Your task to perform on an android device: Search for sushi restaurants on Maps Image 0: 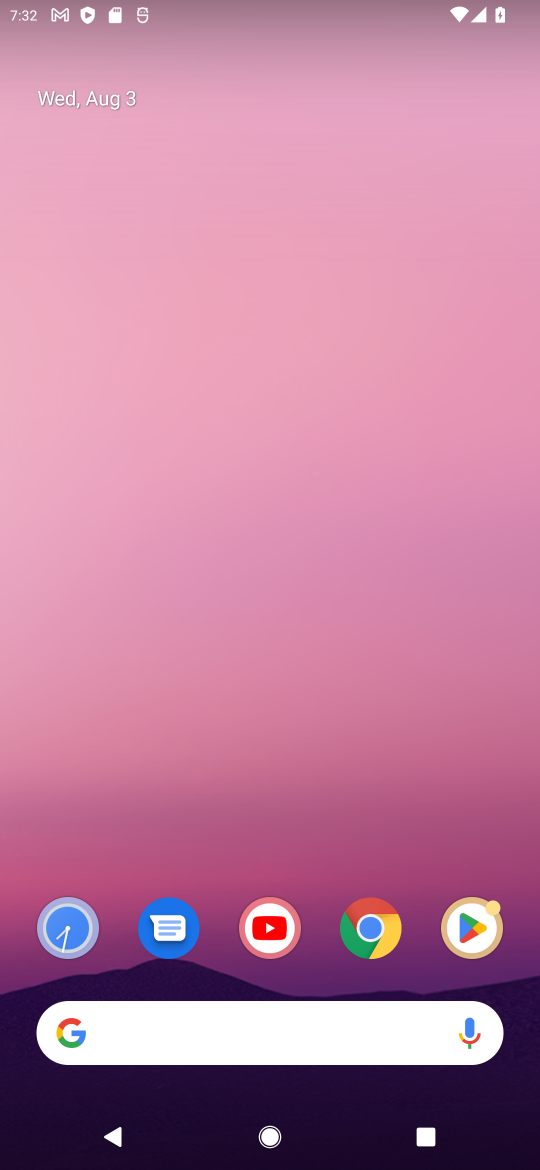
Step 0: drag from (321, 879) to (254, 186)
Your task to perform on an android device: Search for sushi restaurants on Maps Image 1: 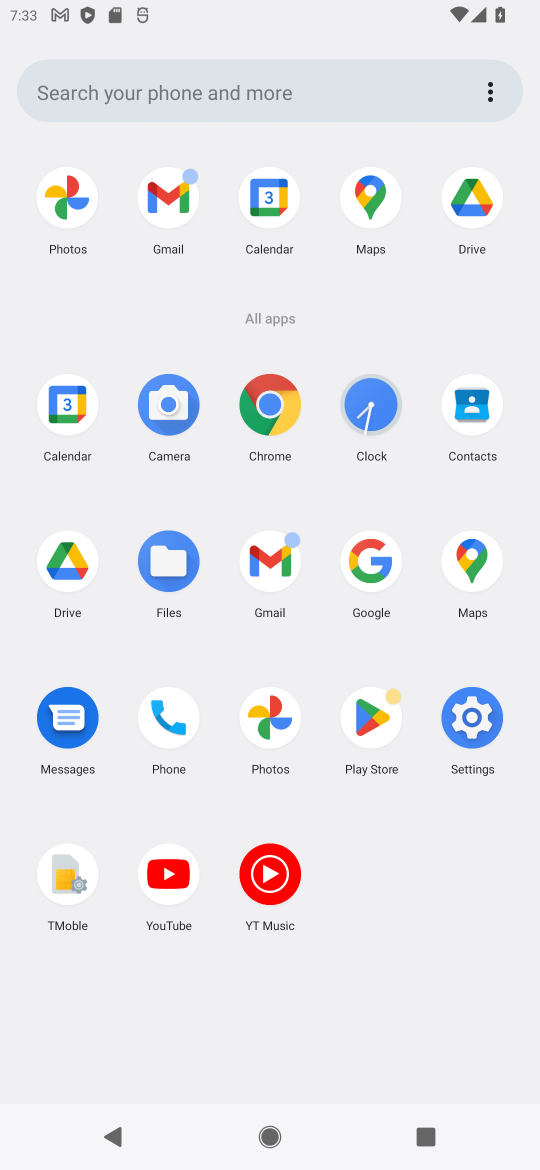
Step 1: click (369, 216)
Your task to perform on an android device: Search for sushi restaurants on Maps Image 2: 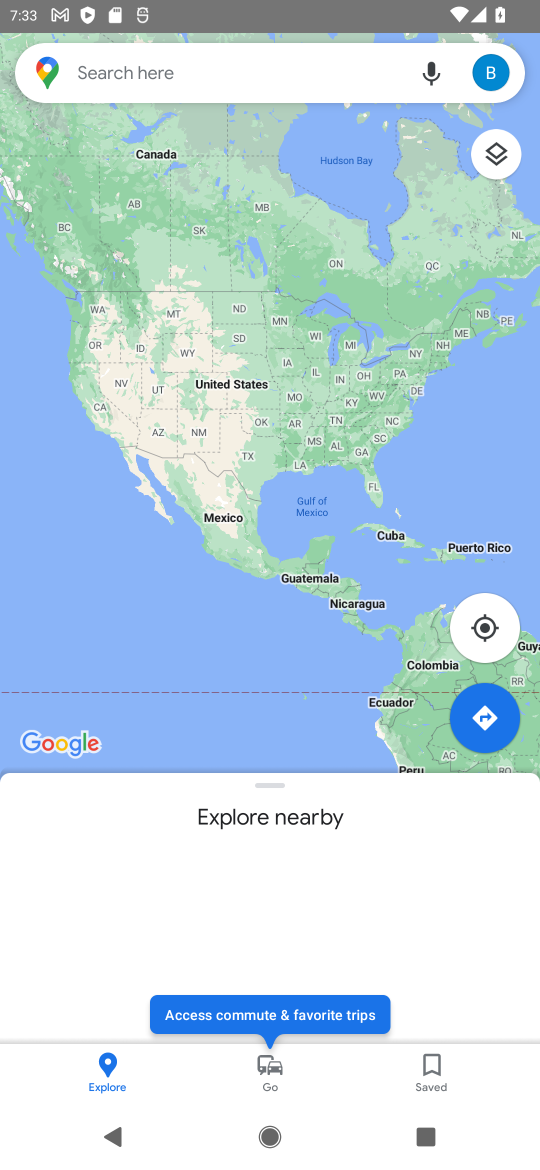
Step 2: click (154, 80)
Your task to perform on an android device: Search for sushi restaurants on Maps Image 3: 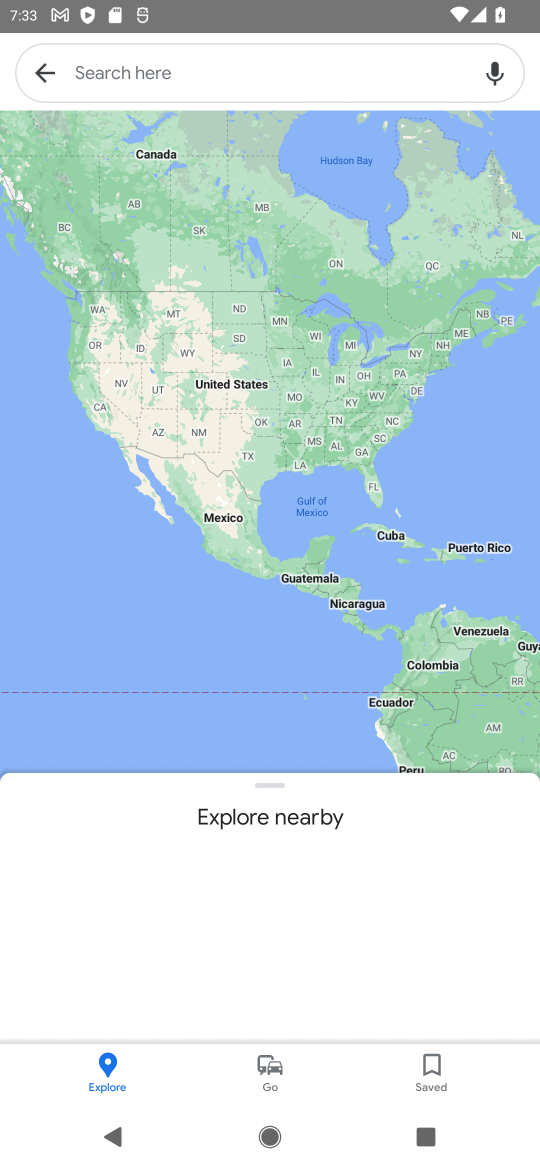
Step 3: click (154, 80)
Your task to perform on an android device: Search for sushi restaurants on Maps Image 4: 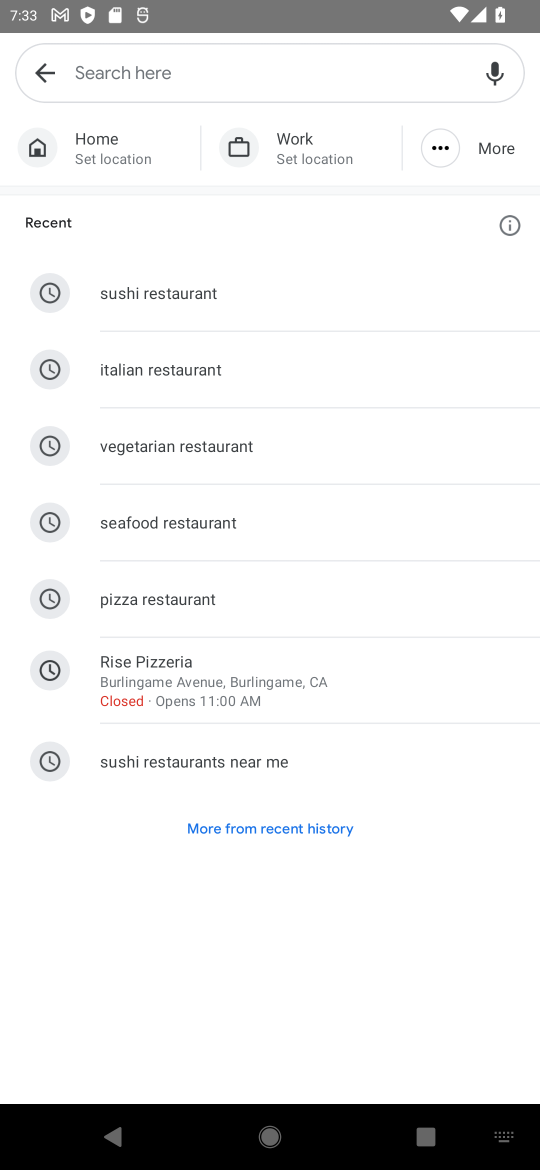
Step 4: click (229, 300)
Your task to perform on an android device: Search for sushi restaurants on Maps Image 5: 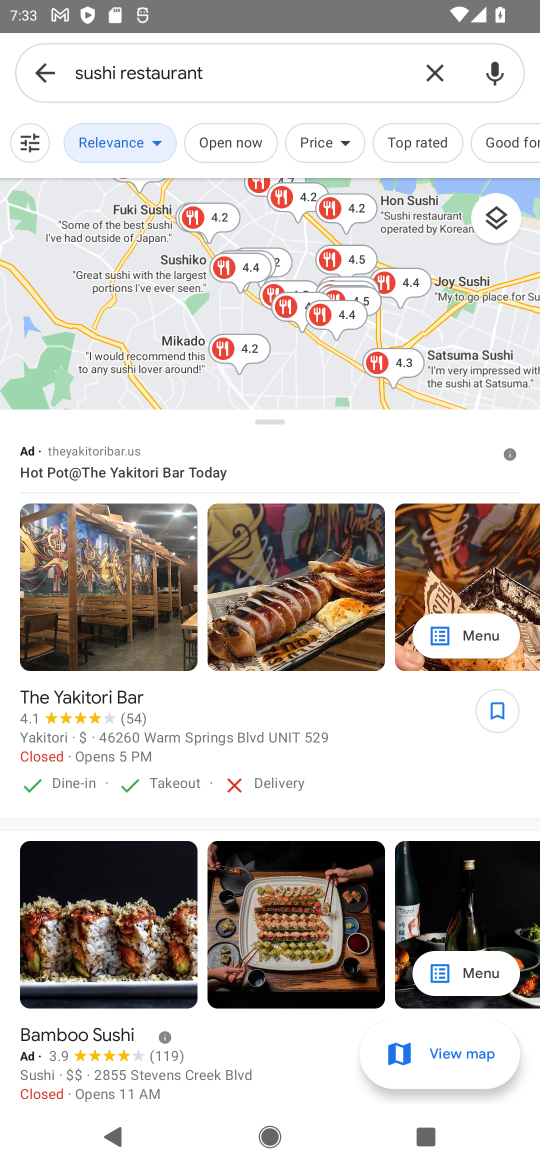
Step 5: task complete